Your task to perform on an android device: Open the phone app and click the voicemail tab. Image 0: 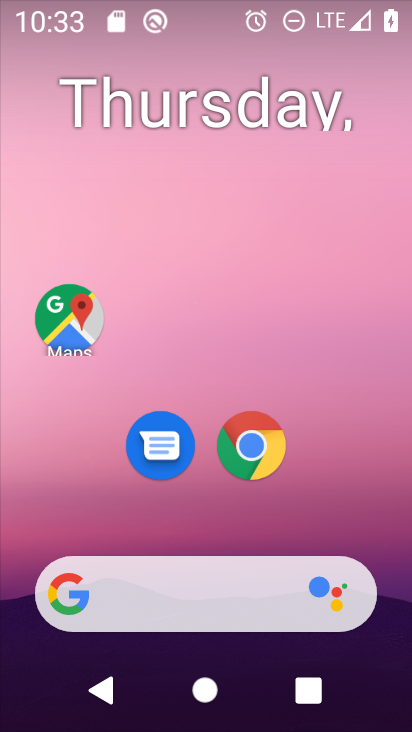
Step 0: drag from (388, 632) to (313, 55)
Your task to perform on an android device: Open the phone app and click the voicemail tab. Image 1: 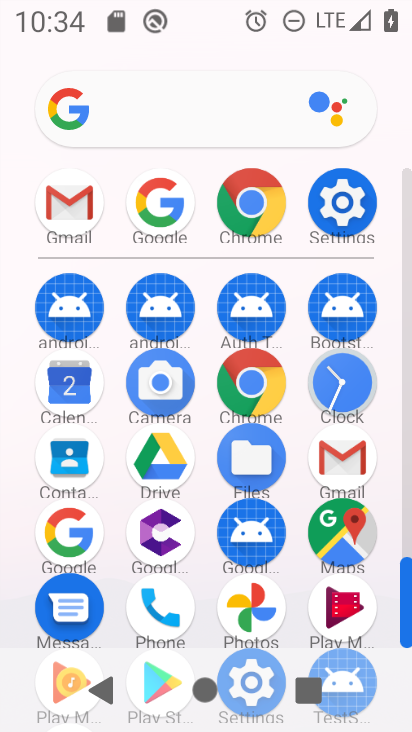
Step 1: click (166, 589)
Your task to perform on an android device: Open the phone app and click the voicemail tab. Image 2: 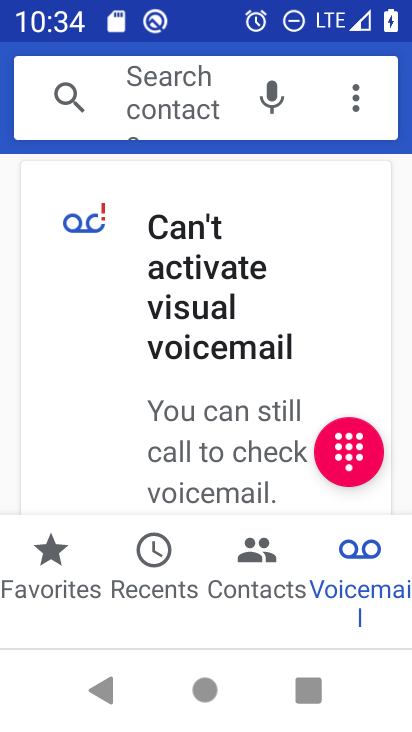
Step 2: task complete